Your task to perform on an android device: Open Google Chrome Image 0: 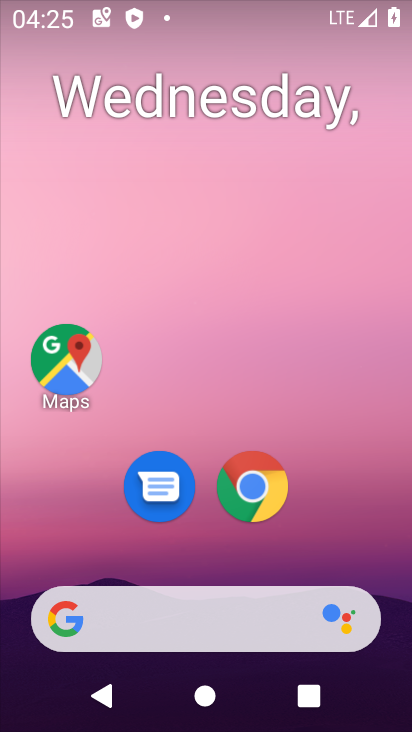
Step 0: click (250, 491)
Your task to perform on an android device: Open Google Chrome Image 1: 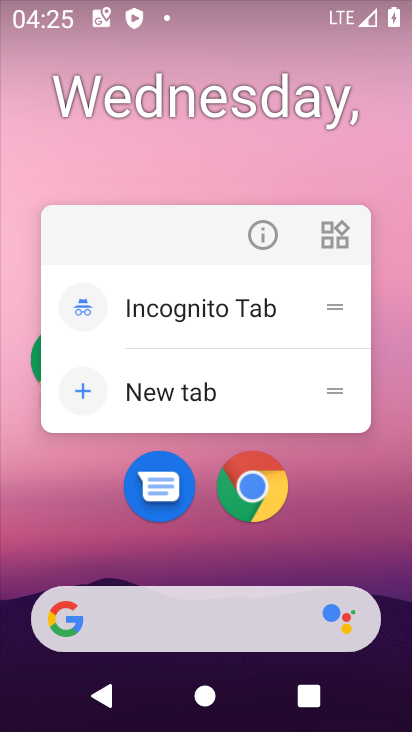
Step 1: click (250, 491)
Your task to perform on an android device: Open Google Chrome Image 2: 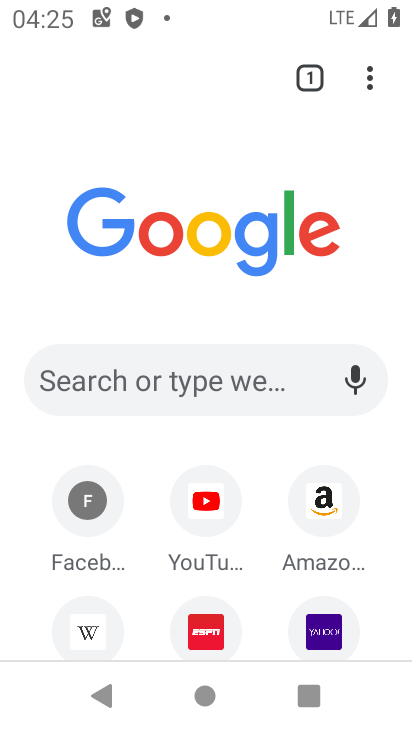
Step 2: task complete